Your task to perform on an android device: find photos in the google photos app Image 0: 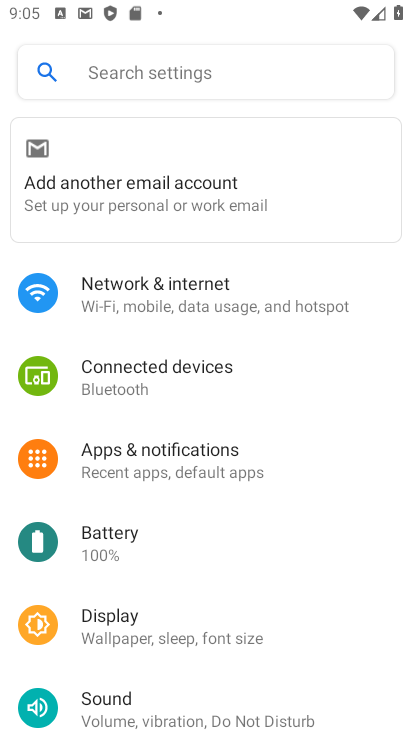
Step 0: press home button
Your task to perform on an android device: find photos in the google photos app Image 1: 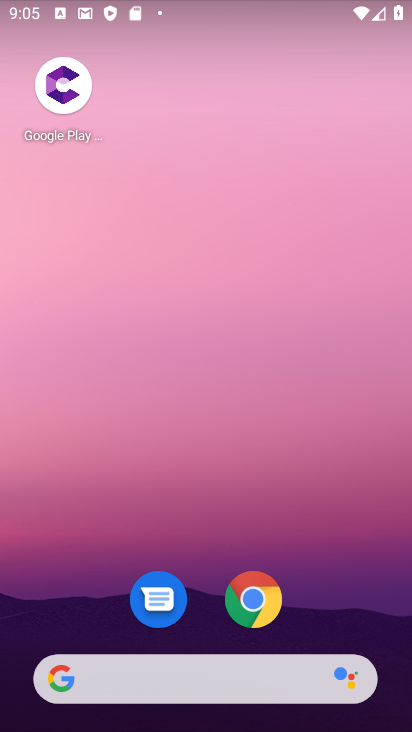
Step 1: drag from (266, 616) to (195, 268)
Your task to perform on an android device: find photos in the google photos app Image 2: 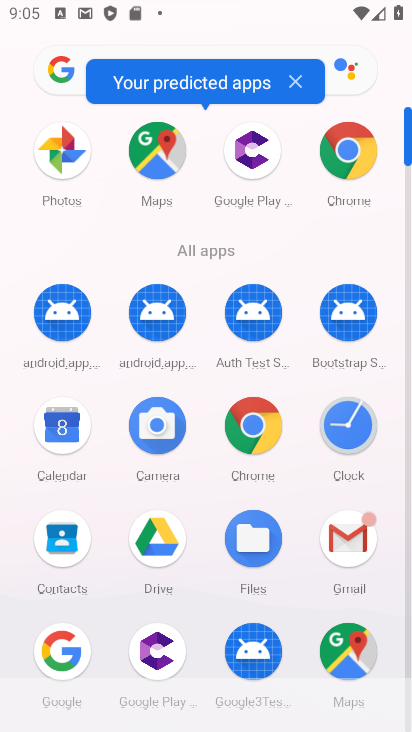
Step 2: drag from (241, 604) to (211, 284)
Your task to perform on an android device: find photos in the google photos app Image 3: 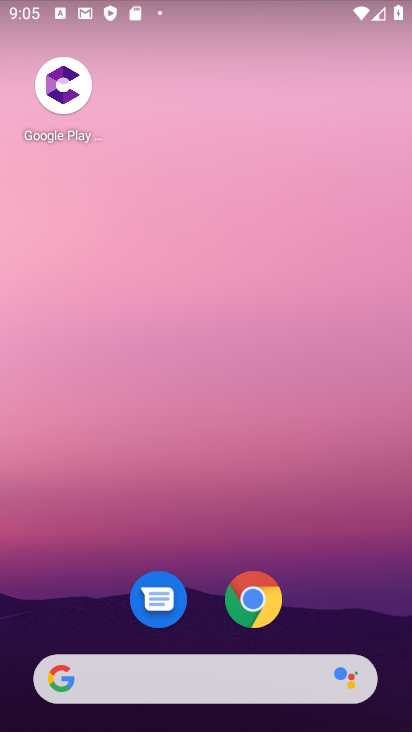
Step 3: drag from (270, 583) to (188, 122)
Your task to perform on an android device: find photos in the google photos app Image 4: 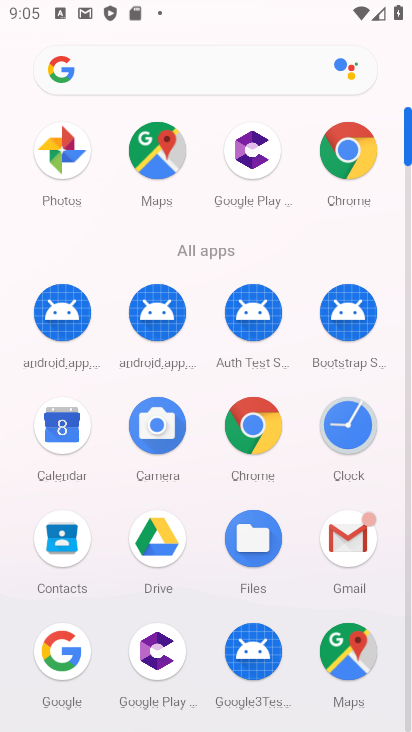
Step 4: click (406, 420)
Your task to perform on an android device: find photos in the google photos app Image 5: 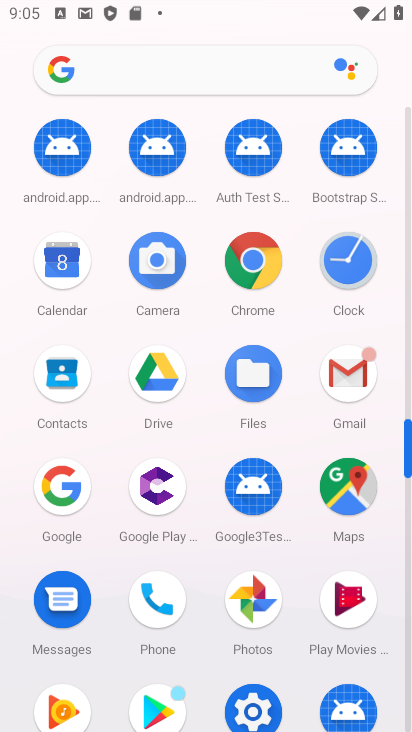
Step 5: click (261, 589)
Your task to perform on an android device: find photos in the google photos app Image 6: 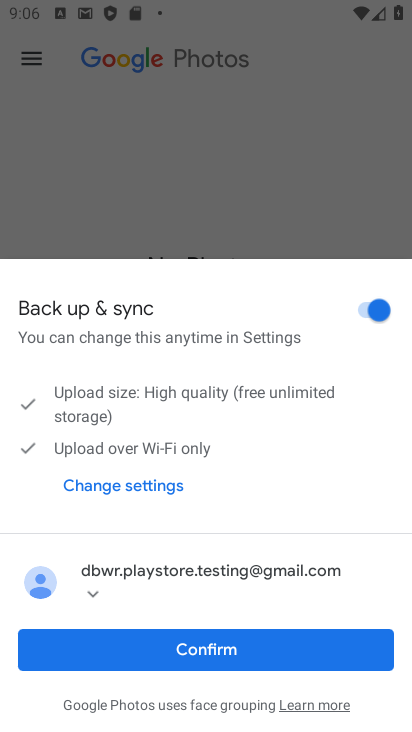
Step 6: click (244, 644)
Your task to perform on an android device: find photos in the google photos app Image 7: 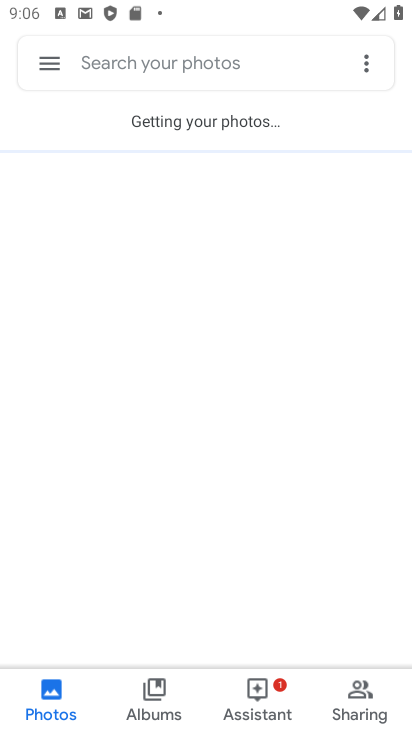
Step 7: task complete